Your task to perform on an android device: change the clock style Image 0: 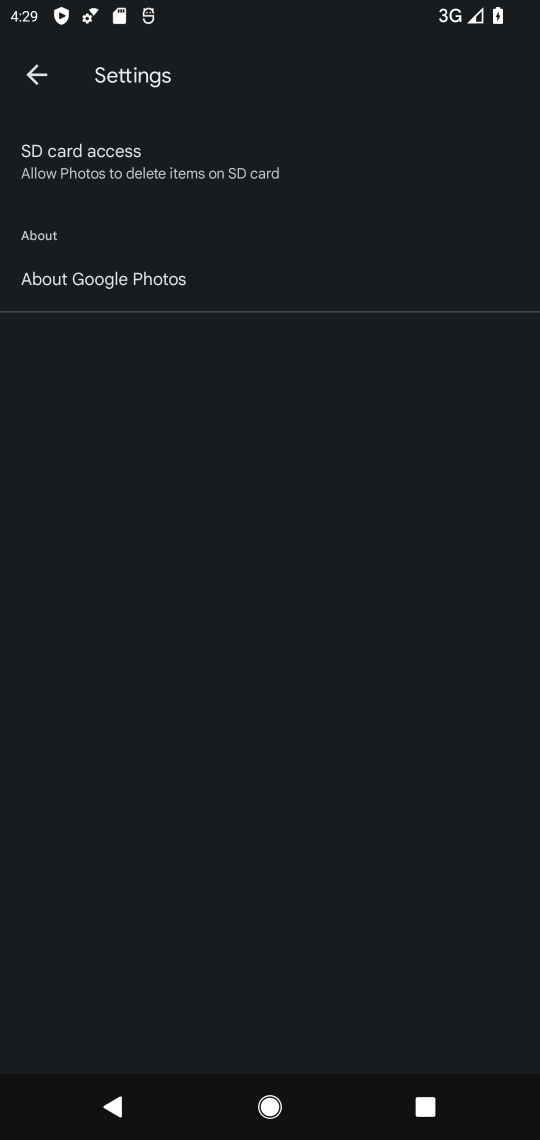
Step 0: task complete